Your task to perform on an android device: Go to Wikipedia Image 0: 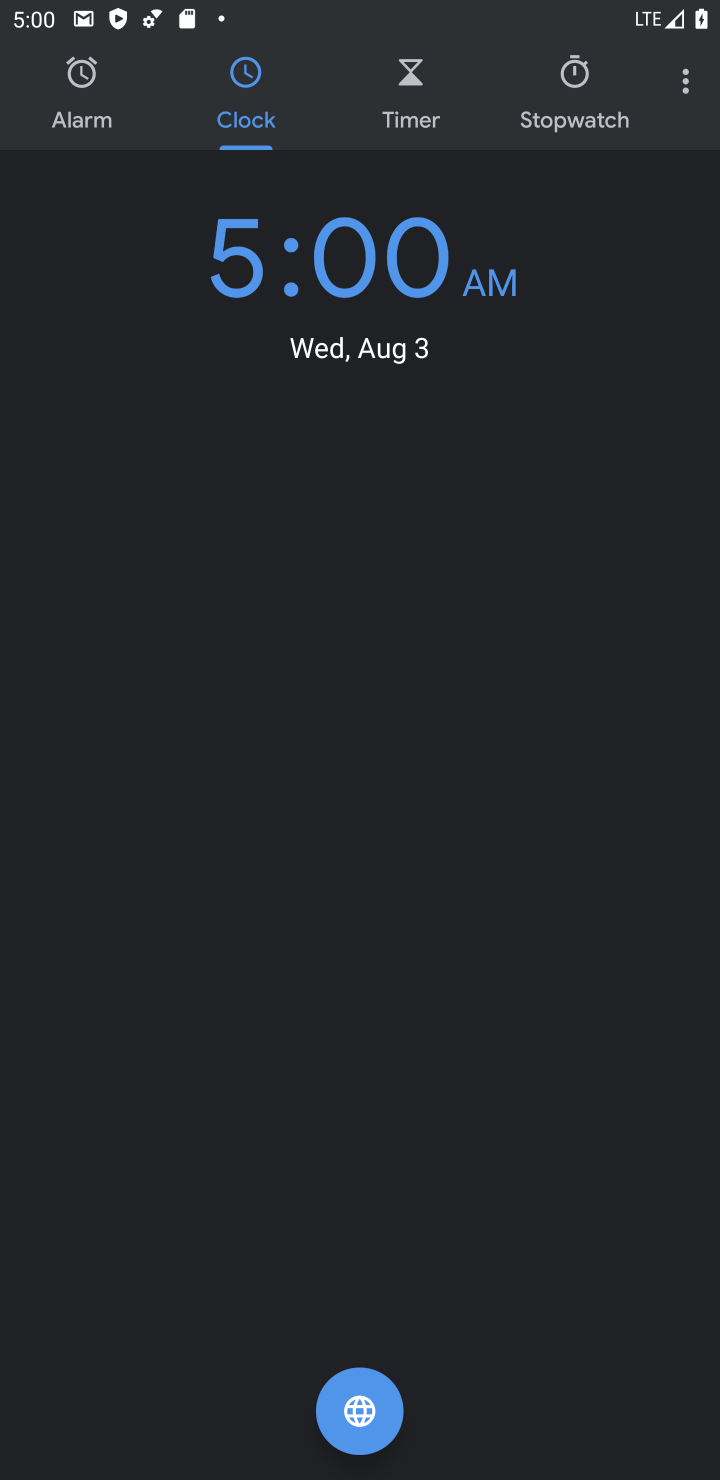
Step 0: press home button
Your task to perform on an android device: Go to Wikipedia Image 1: 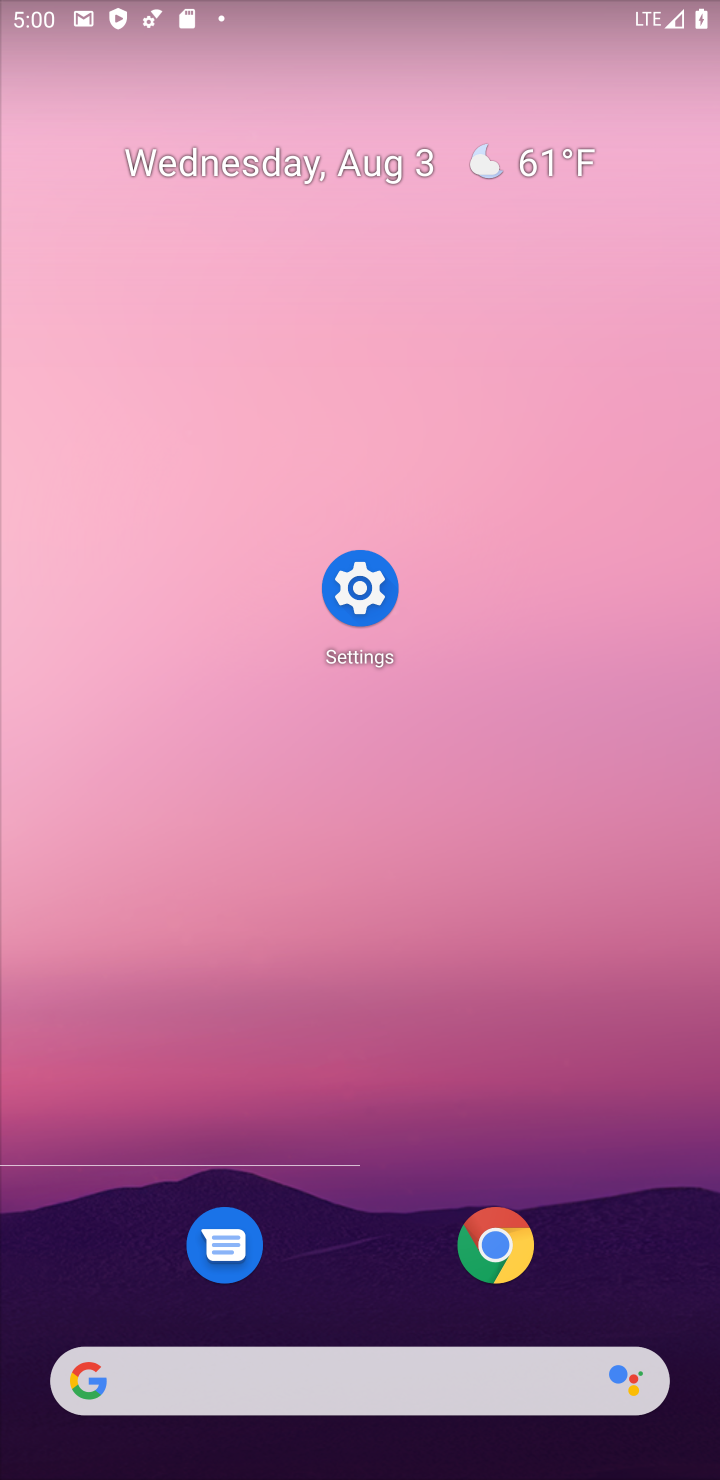
Step 1: click (510, 1266)
Your task to perform on an android device: Go to Wikipedia Image 2: 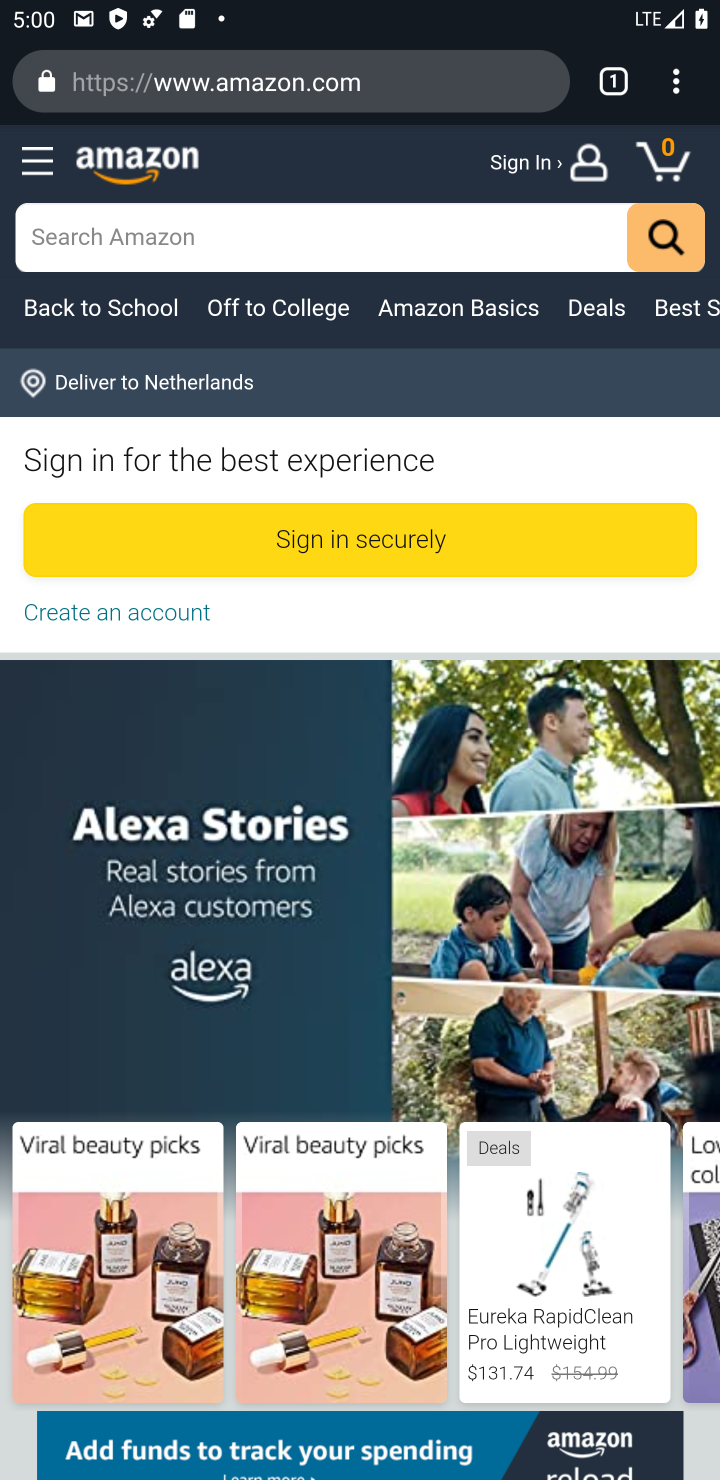
Step 2: click (244, 89)
Your task to perform on an android device: Go to Wikipedia Image 3: 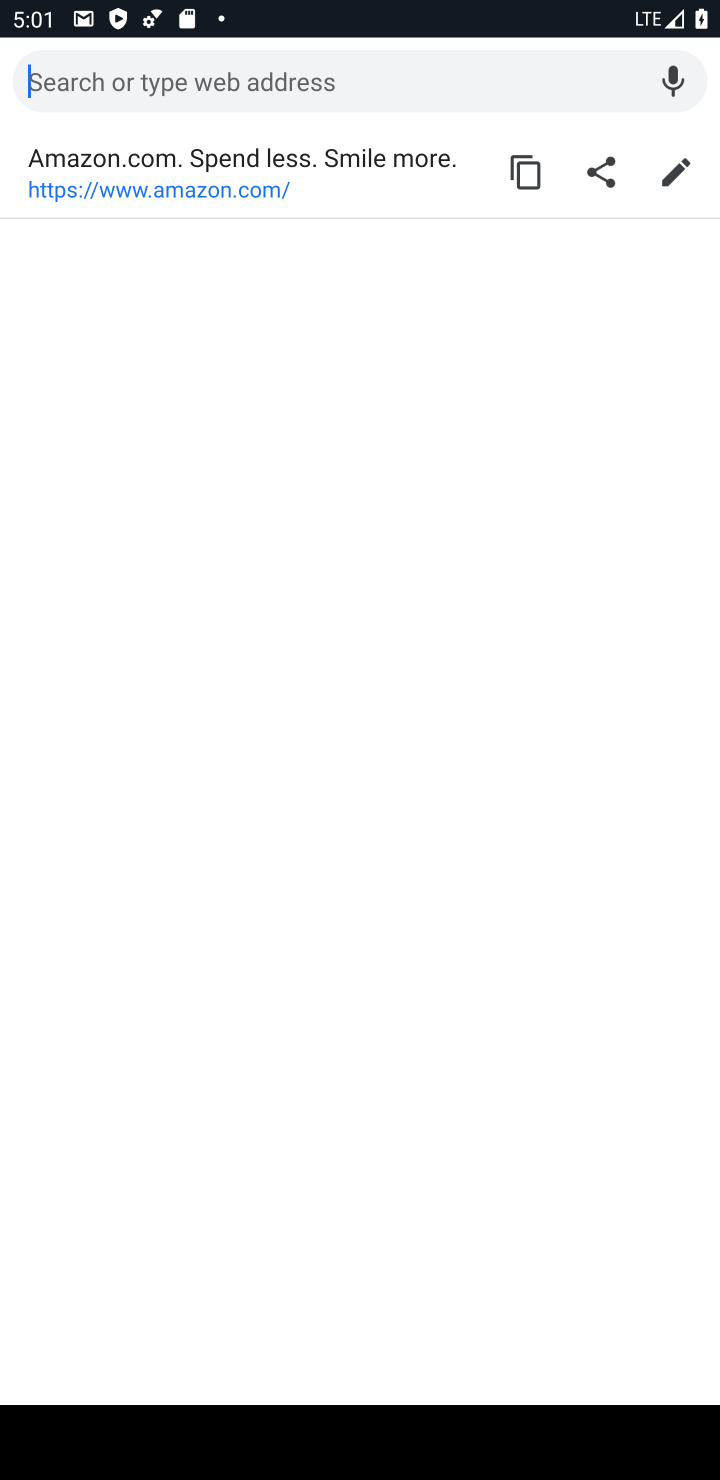
Step 3: type "wikipedia"
Your task to perform on an android device: Go to Wikipedia Image 4: 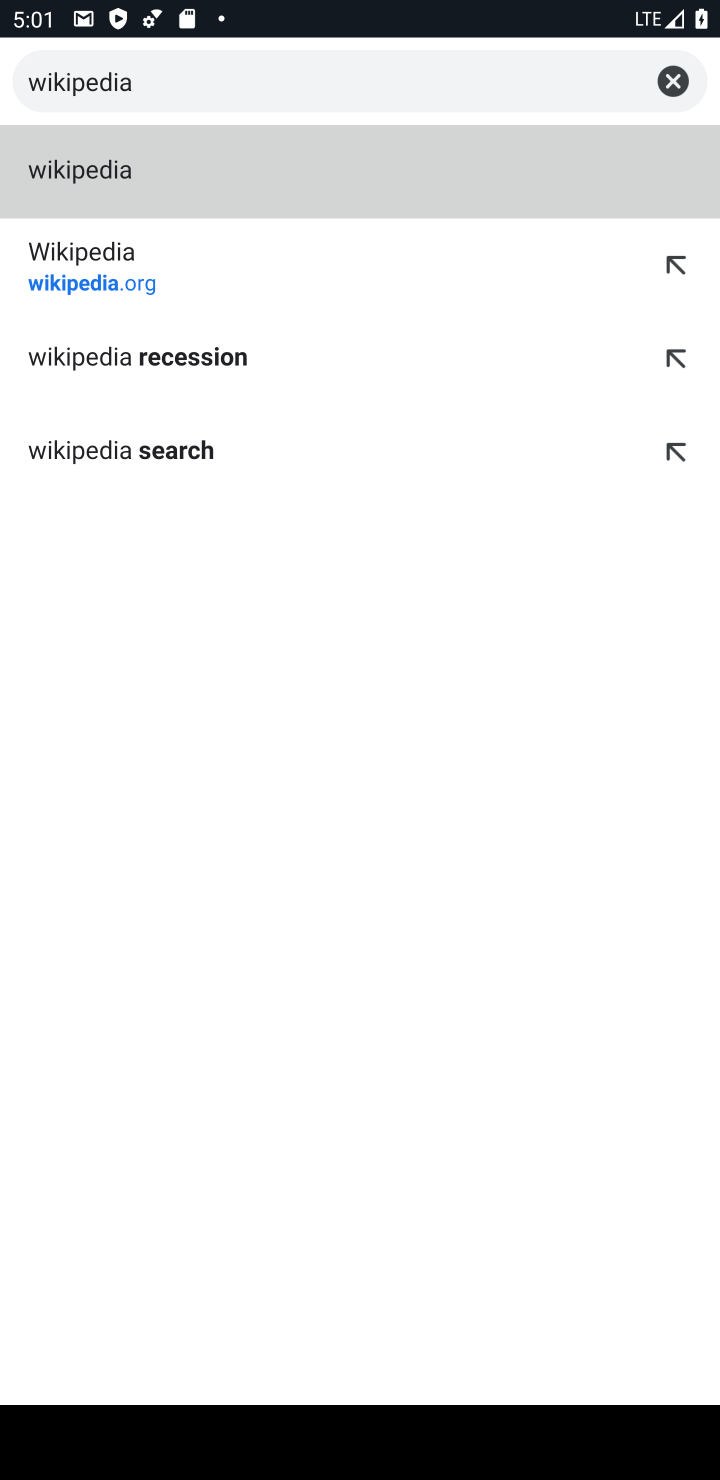
Step 4: click (122, 168)
Your task to perform on an android device: Go to Wikipedia Image 5: 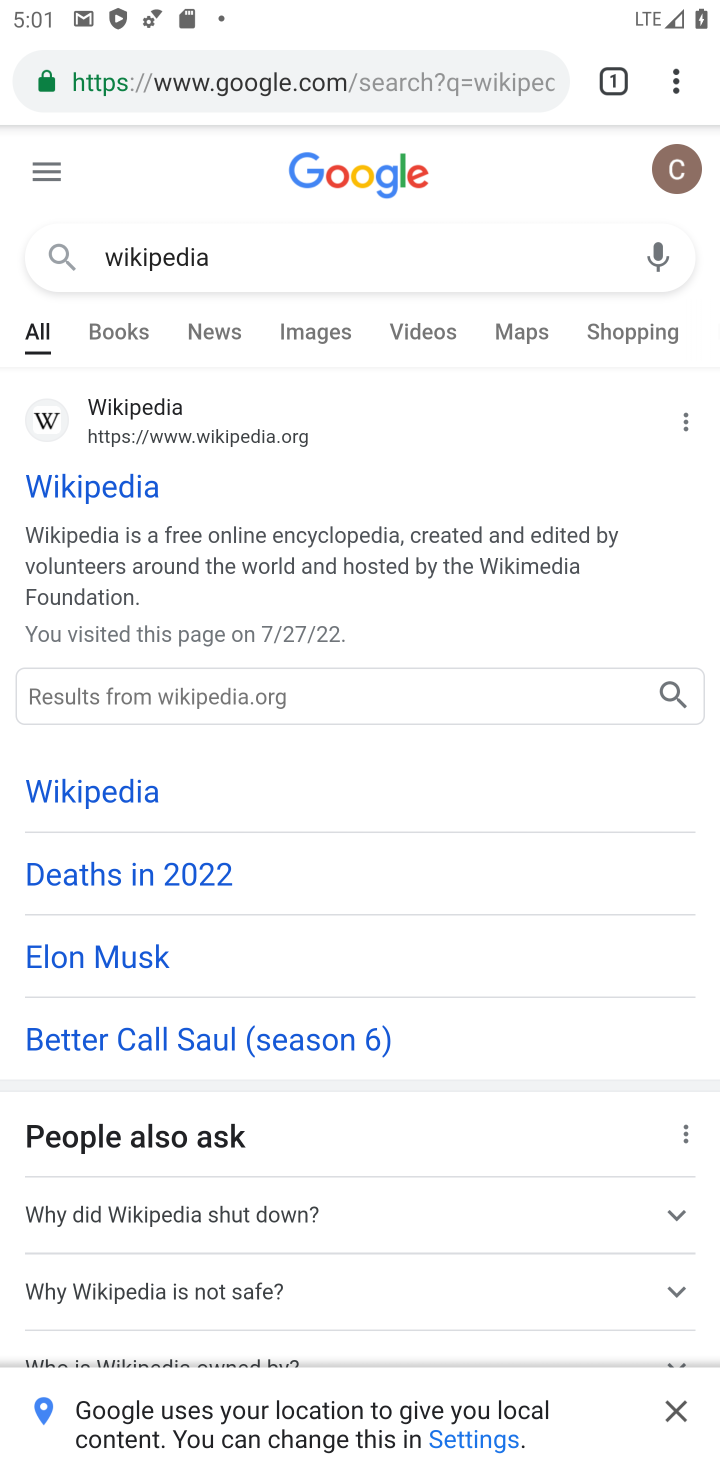
Step 5: task complete